Your task to perform on an android device: set an alarm Image 0: 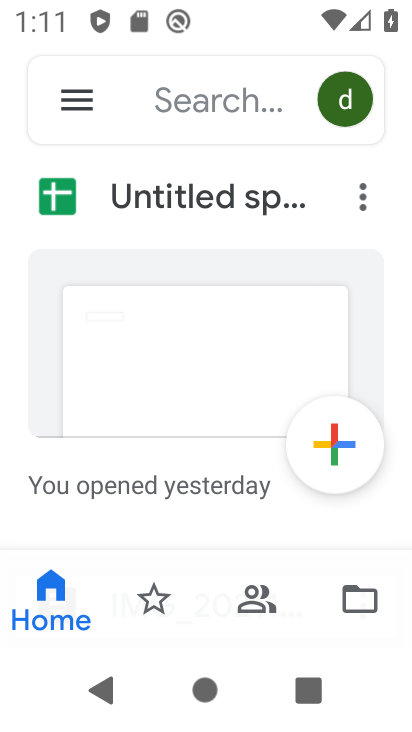
Step 0: press home button
Your task to perform on an android device: set an alarm Image 1: 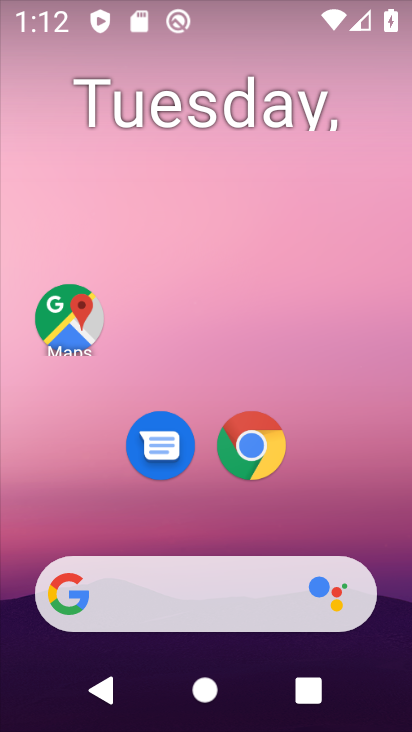
Step 1: drag from (215, 554) to (174, 182)
Your task to perform on an android device: set an alarm Image 2: 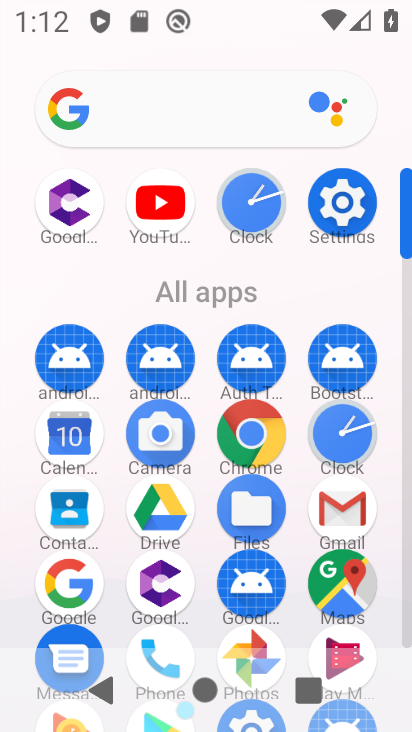
Step 2: click (270, 210)
Your task to perform on an android device: set an alarm Image 3: 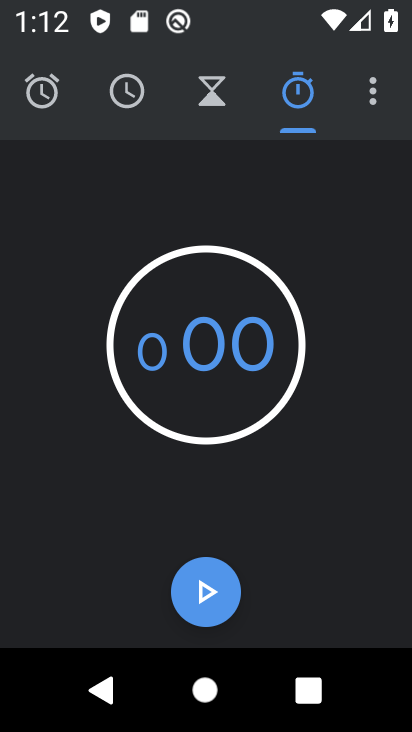
Step 3: click (30, 106)
Your task to perform on an android device: set an alarm Image 4: 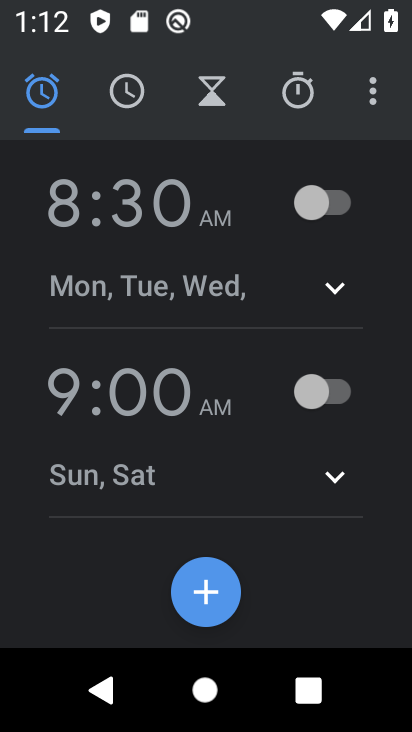
Step 4: click (352, 206)
Your task to perform on an android device: set an alarm Image 5: 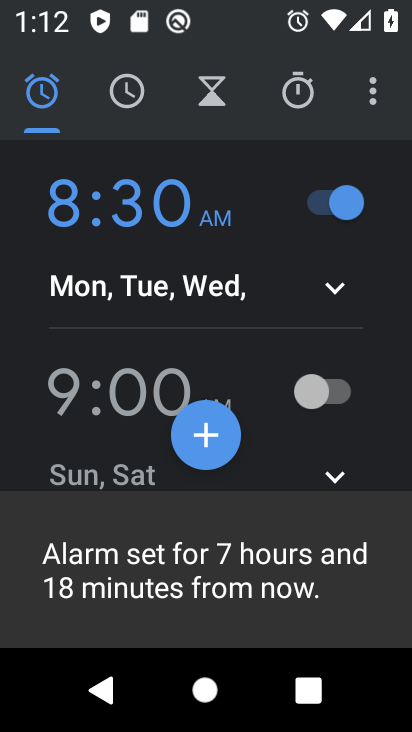
Step 5: task complete